Your task to perform on an android device: What's on my calendar today? Image 0: 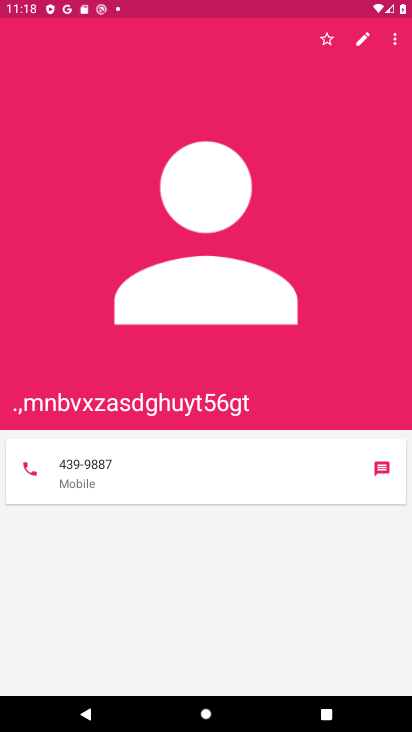
Step 0: press home button
Your task to perform on an android device: What's on my calendar today? Image 1: 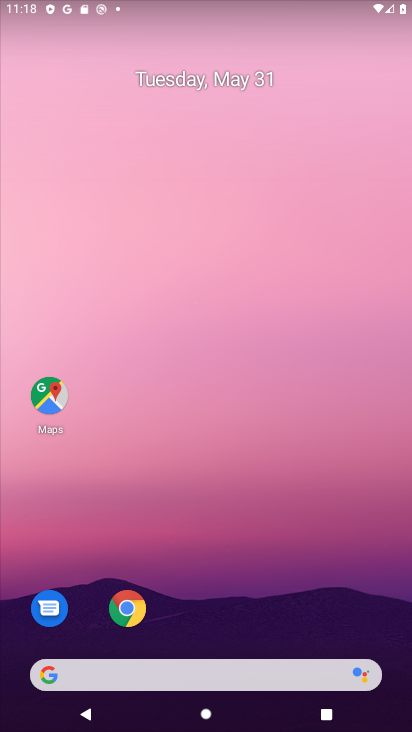
Step 1: drag from (342, 586) to (243, 185)
Your task to perform on an android device: What's on my calendar today? Image 2: 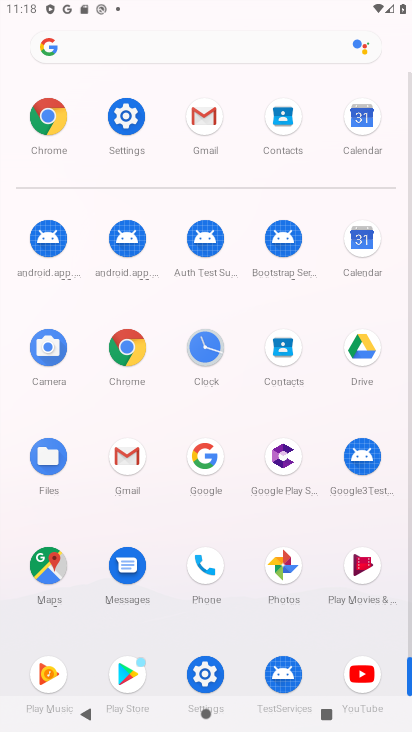
Step 2: click (359, 241)
Your task to perform on an android device: What's on my calendar today? Image 3: 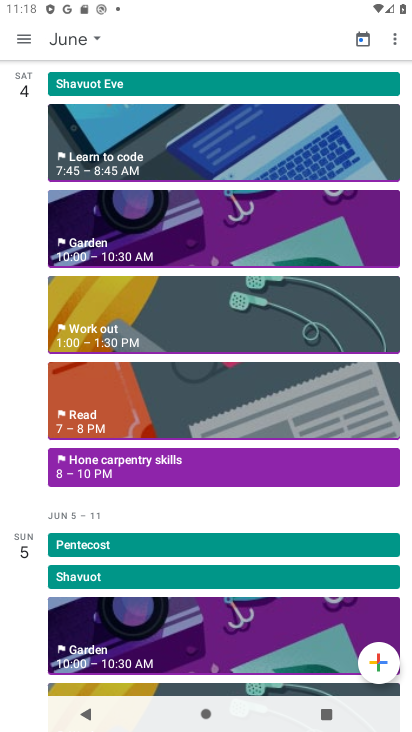
Step 3: click (94, 25)
Your task to perform on an android device: What's on my calendar today? Image 4: 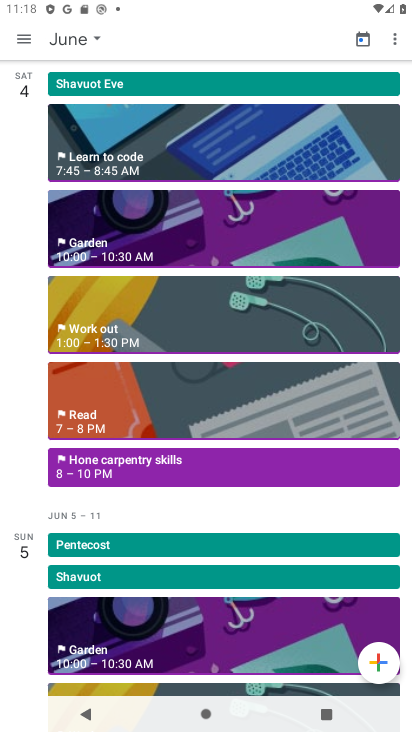
Step 4: click (101, 34)
Your task to perform on an android device: What's on my calendar today? Image 5: 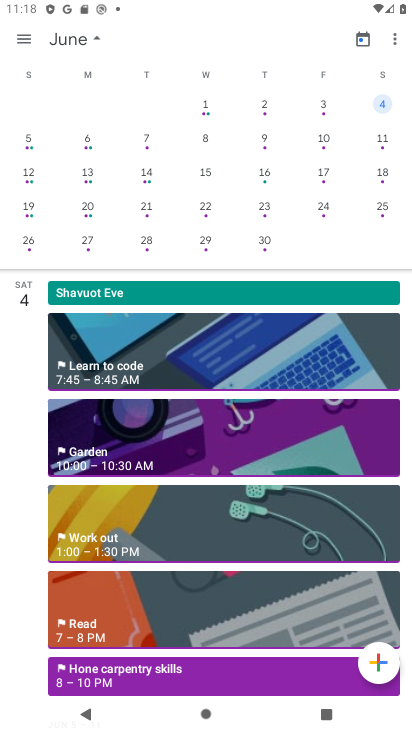
Step 5: click (232, 107)
Your task to perform on an android device: What's on my calendar today? Image 6: 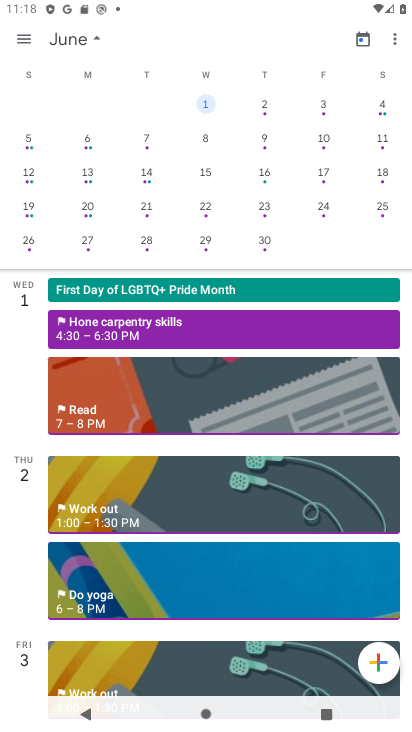
Step 6: click (81, 20)
Your task to perform on an android device: What's on my calendar today? Image 7: 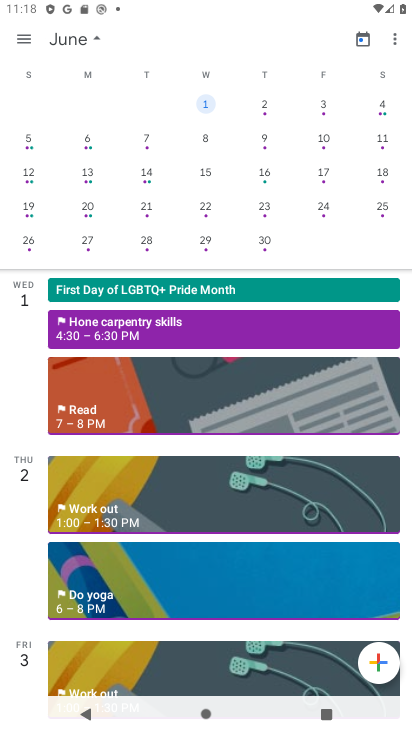
Step 7: click (104, 36)
Your task to perform on an android device: What's on my calendar today? Image 8: 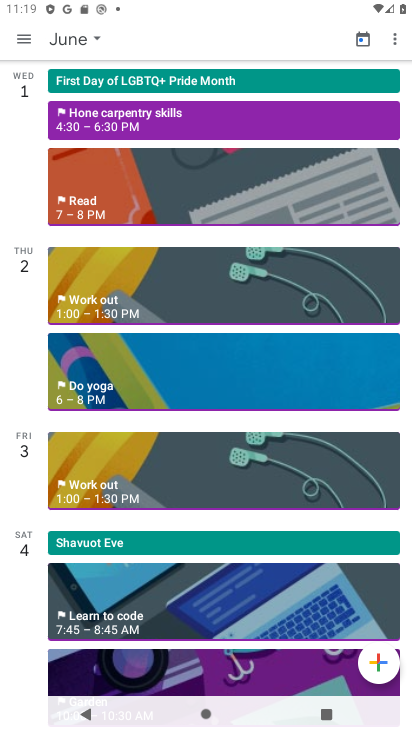
Step 8: task complete